Your task to perform on an android device: change notification settings in the gmail app Image 0: 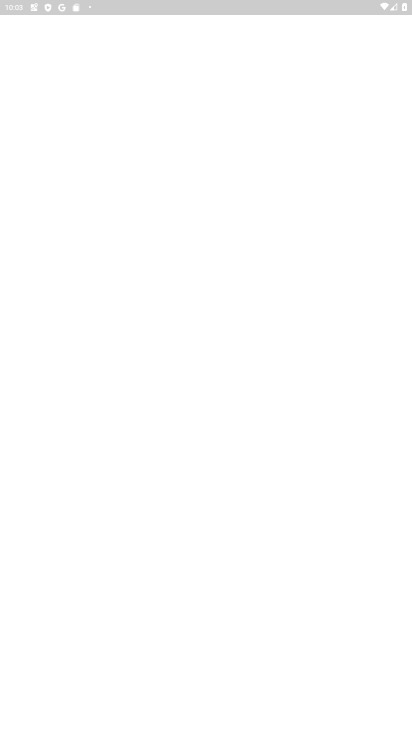
Step 0: drag from (269, 645) to (228, 222)
Your task to perform on an android device: change notification settings in the gmail app Image 1: 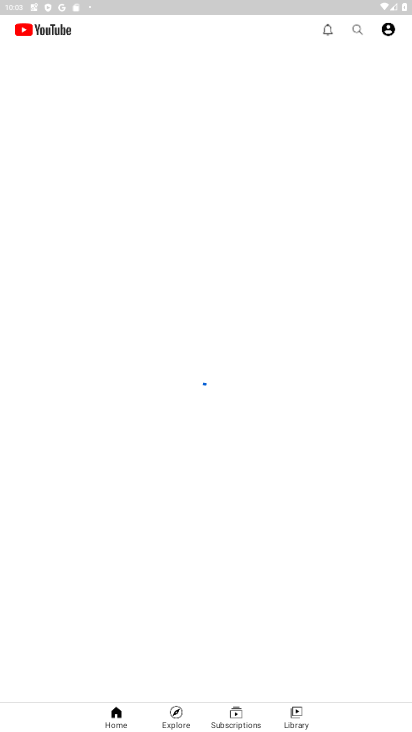
Step 1: press home button
Your task to perform on an android device: change notification settings in the gmail app Image 2: 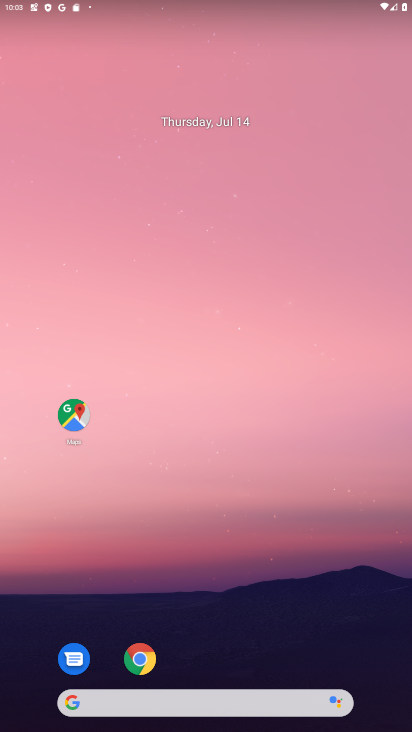
Step 2: drag from (287, 663) to (290, 220)
Your task to perform on an android device: change notification settings in the gmail app Image 3: 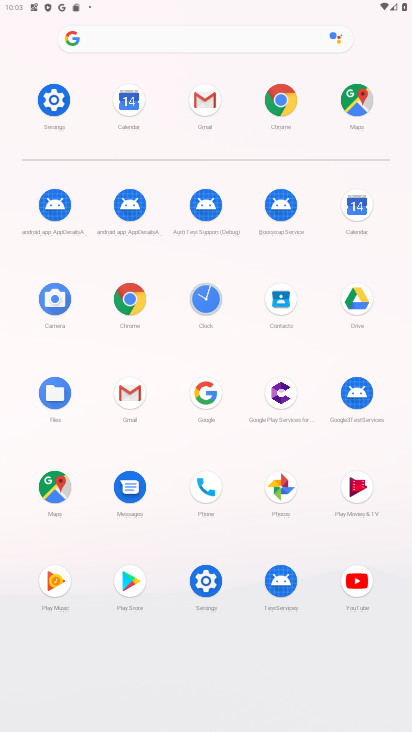
Step 3: click (212, 103)
Your task to perform on an android device: change notification settings in the gmail app Image 4: 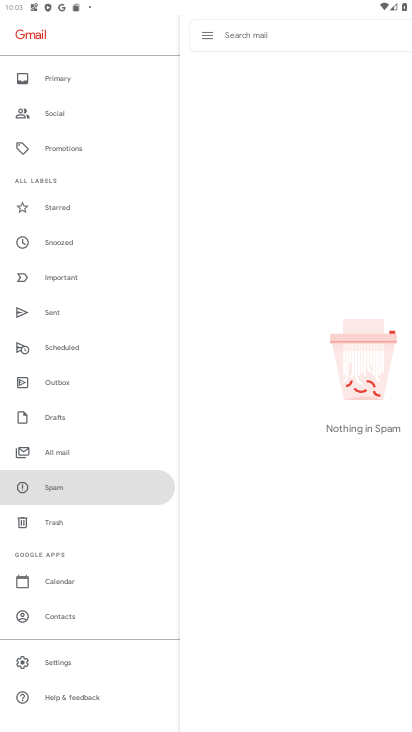
Step 4: click (52, 661)
Your task to perform on an android device: change notification settings in the gmail app Image 5: 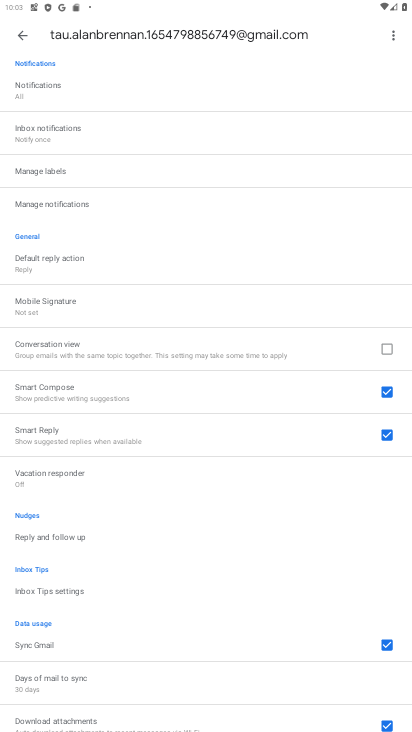
Step 5: click (87, 204)
Your task to perform on an android device: change notification settings in the gmail app Image 6: 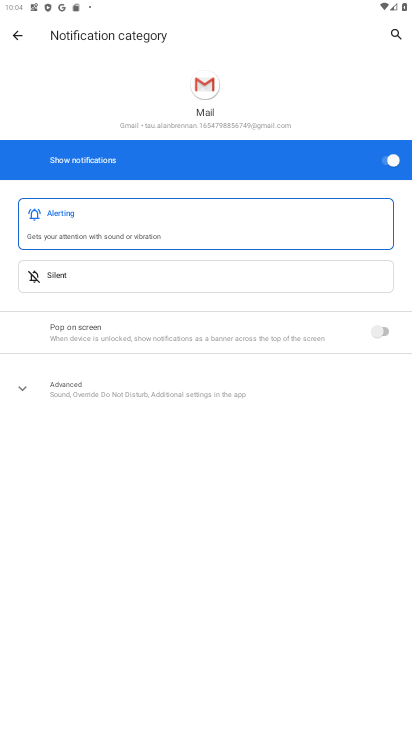
Step 6: click (379, 163)
Your task to perform on an android device: change notification settings in the gmail app Image 7: 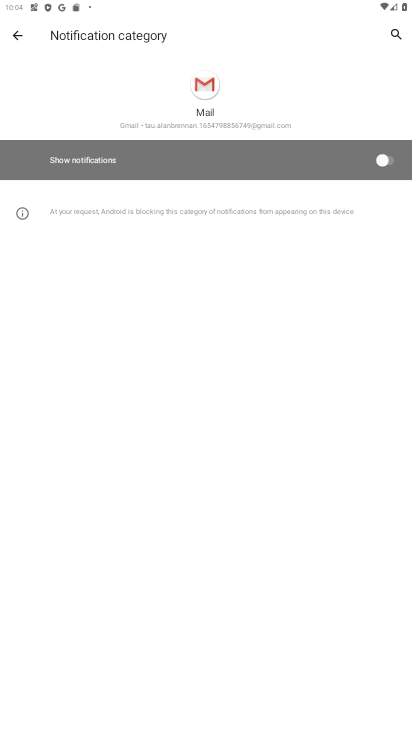
Step 7: task complete